Your task to perform on an android device: Go to location settings Image 0: 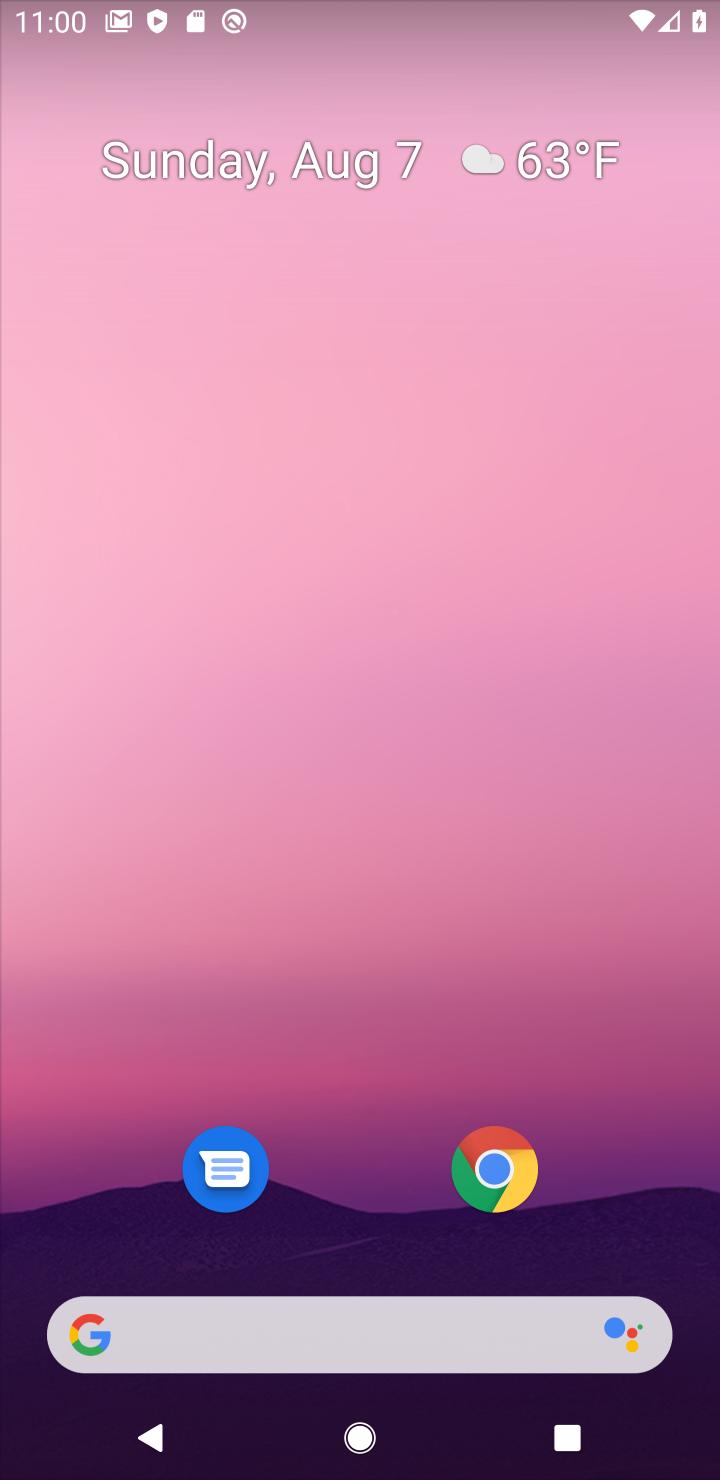
Step 0: drag from (369, 1029) to (563, 2)
Your task to perform on an android device: Go to location settings Image 1: 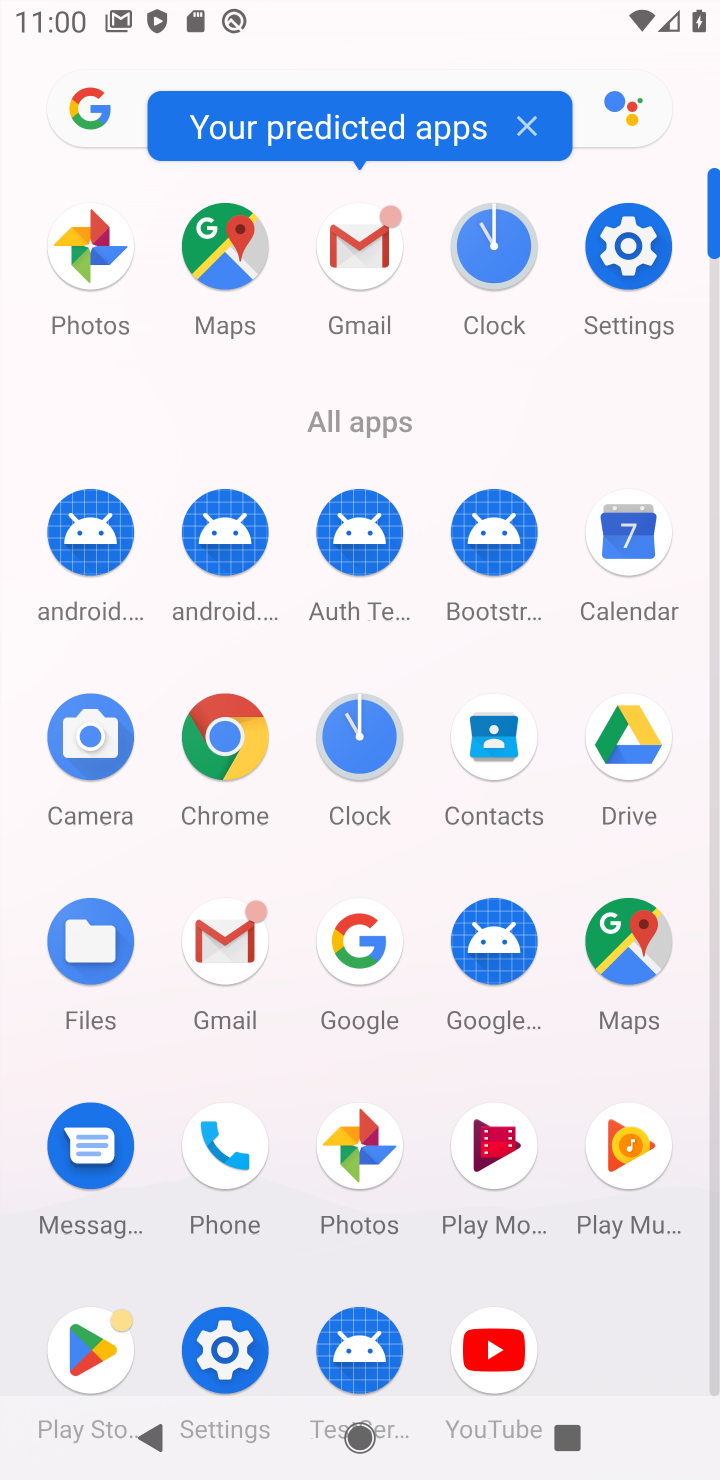
Step 1: click (637, 287)
Your task to perform on an android device: Go to location settings Image 2: 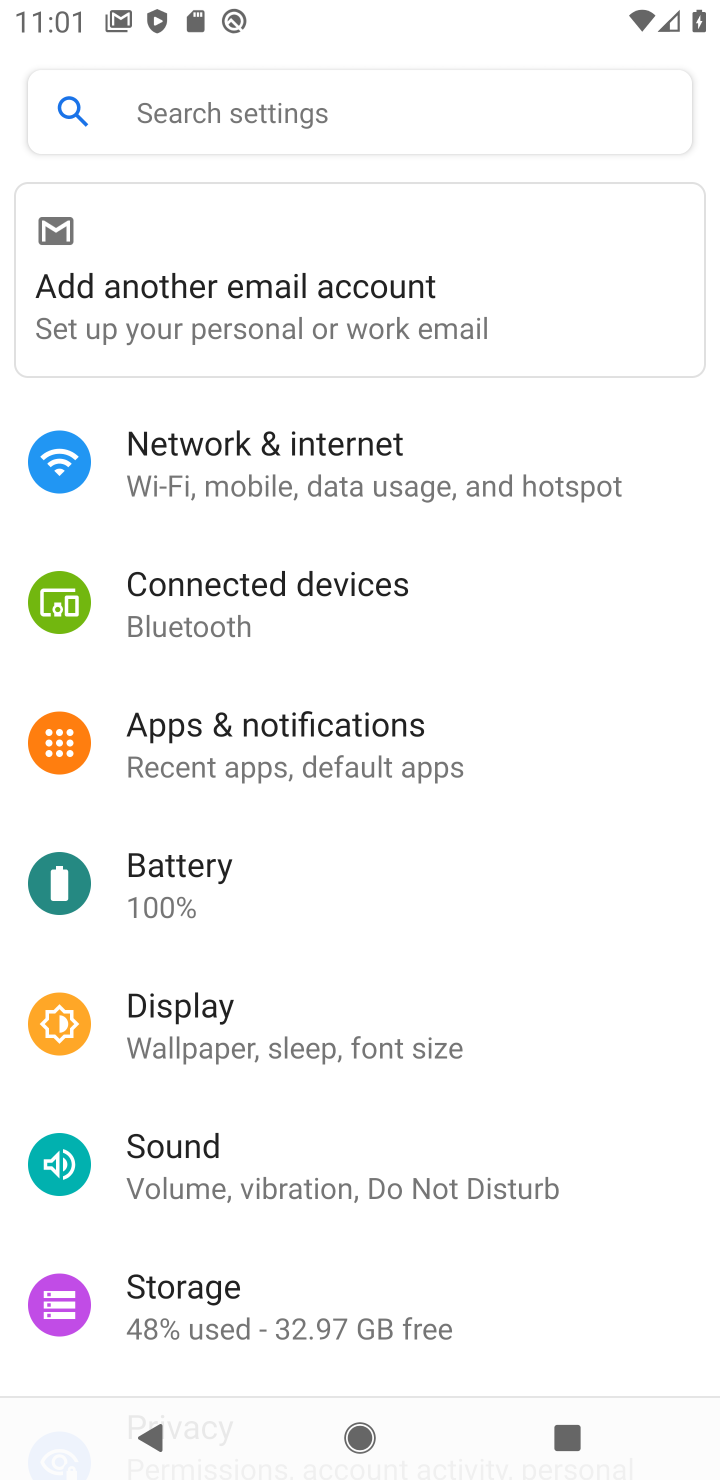
Step 2: drag from (285, 1190) to (306, 385)
Your task to perform on an android device: Go to location settings Image 3: 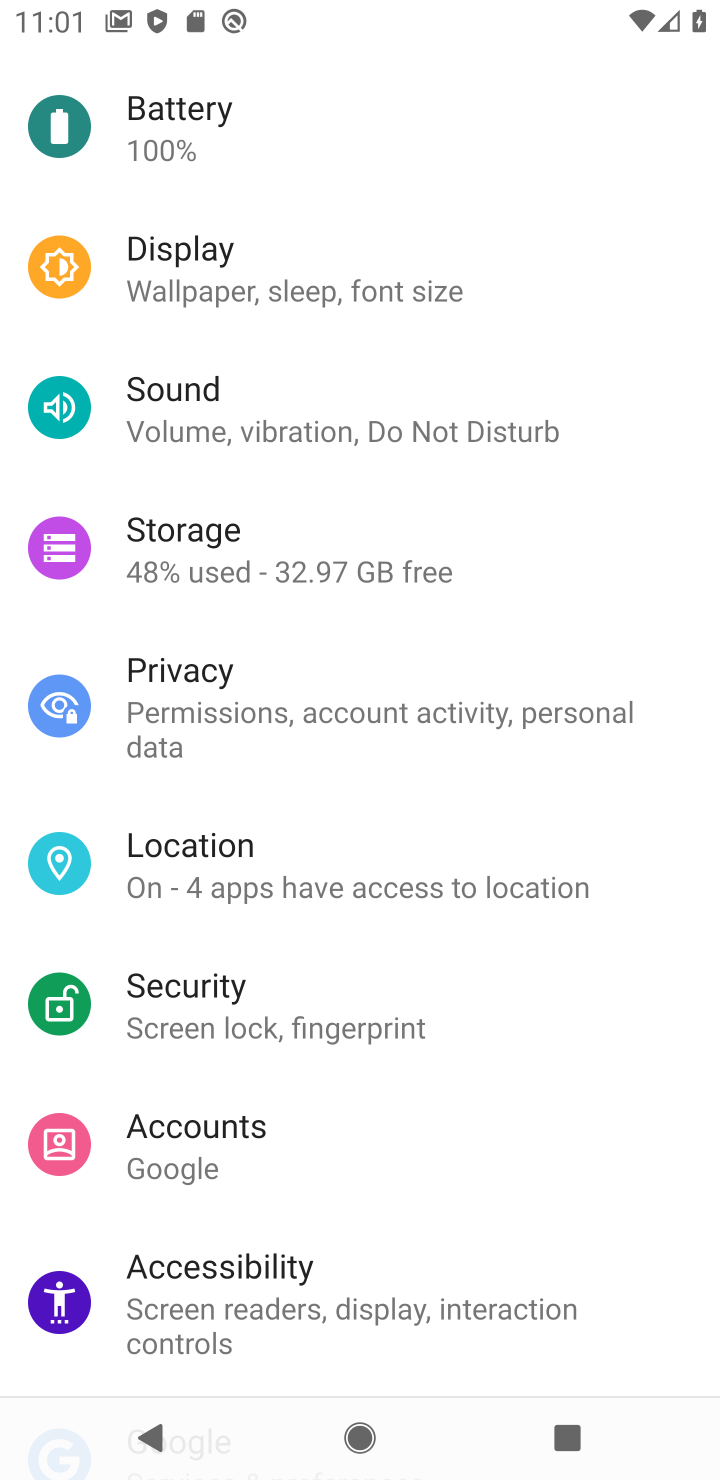
Step 3: click (192, 860)
Your task to perform on an android device: Go to location settings Image 4: 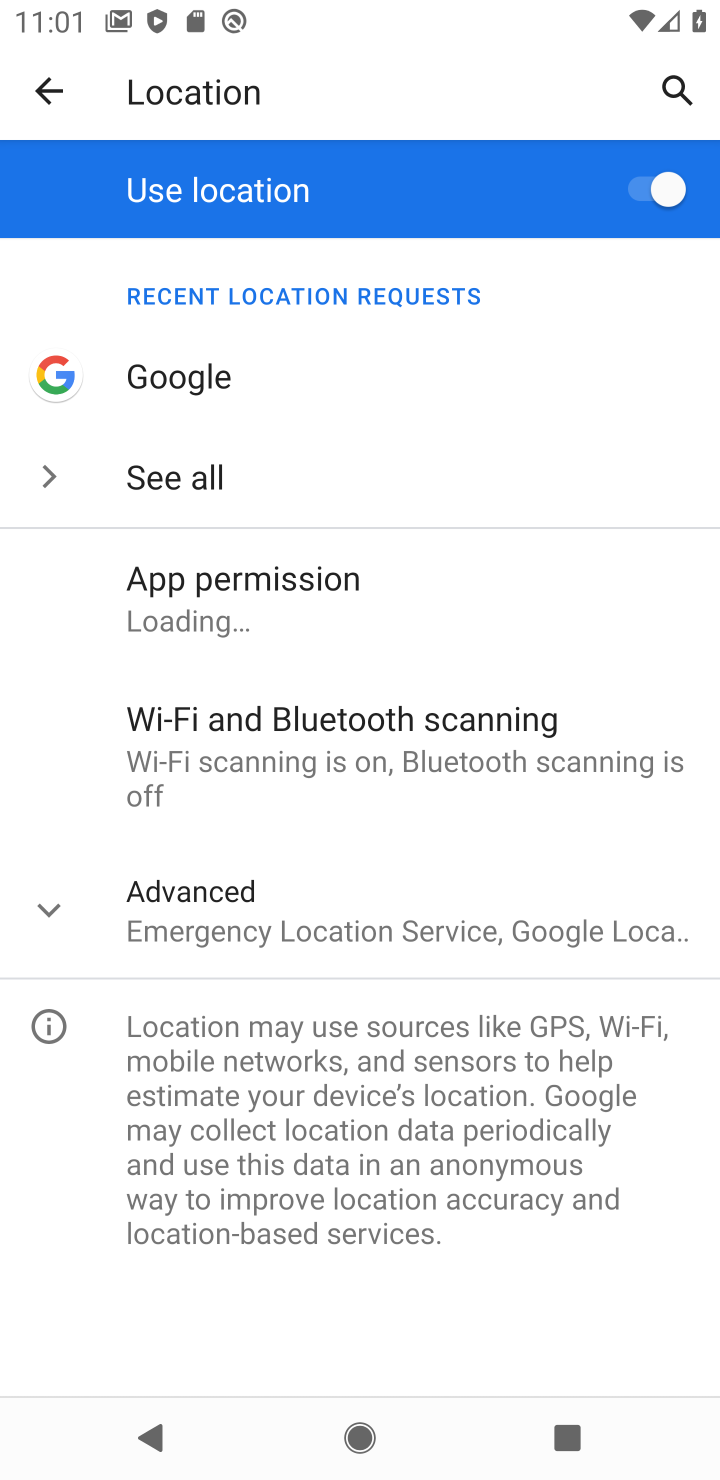
Step 4: click (216, 889)
Your task to perform on an android device: Go to location settings Image 5: 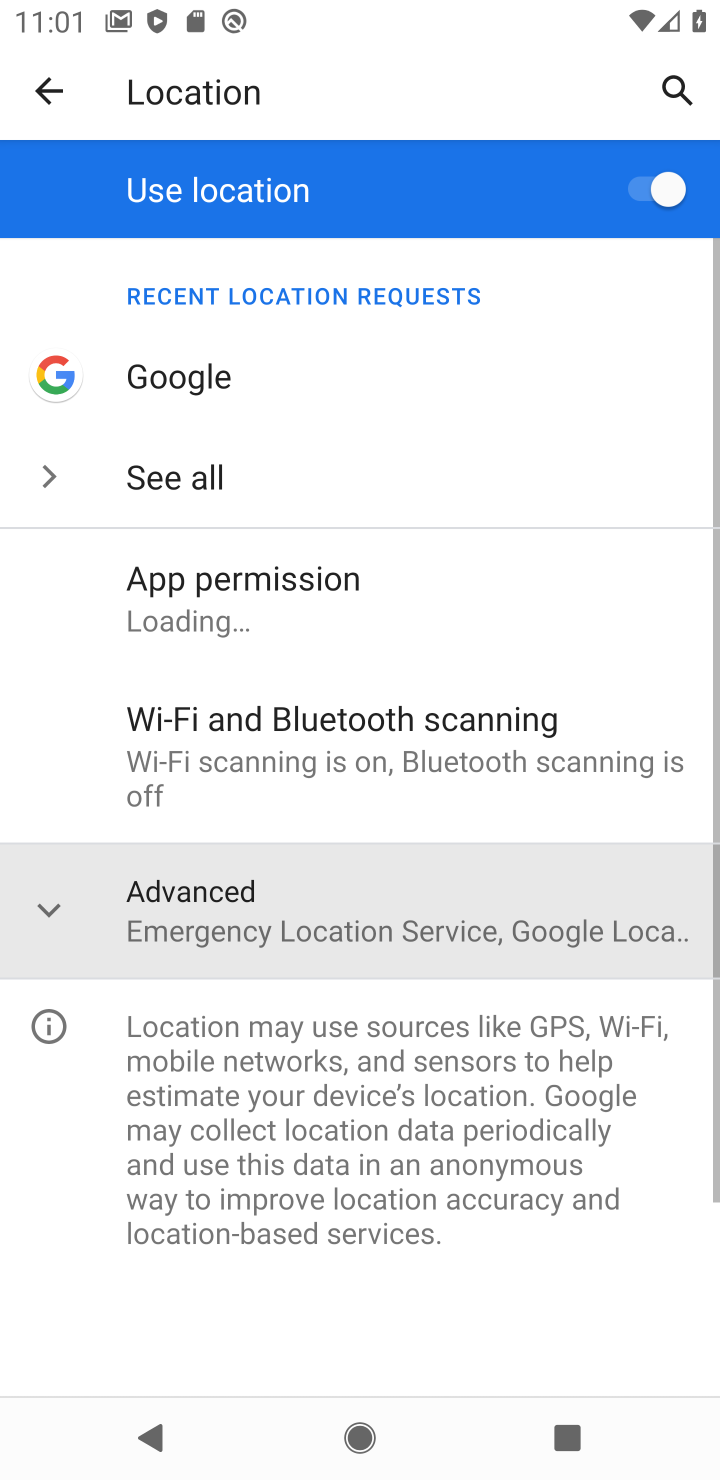
Step 5: task complete